Your task to perform on an android device: turn off translation in the chrome app Image 0: 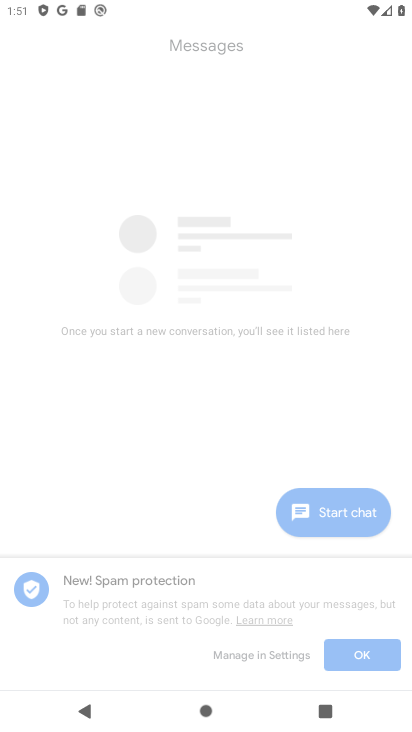
Step 0: drag from (217, 650) to (189, 462)
Your task to perform on an android device: turn off translation in the chrome app Image 1: 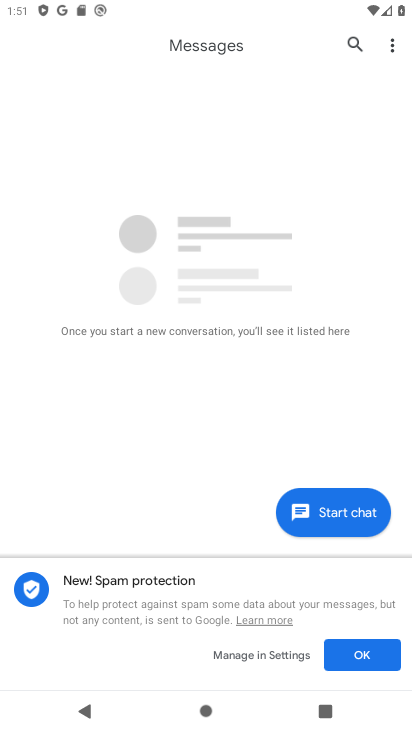
Step 1: click (362, 644)
Your task to perform on an android device: turn off translation in the chrome app Image 2: 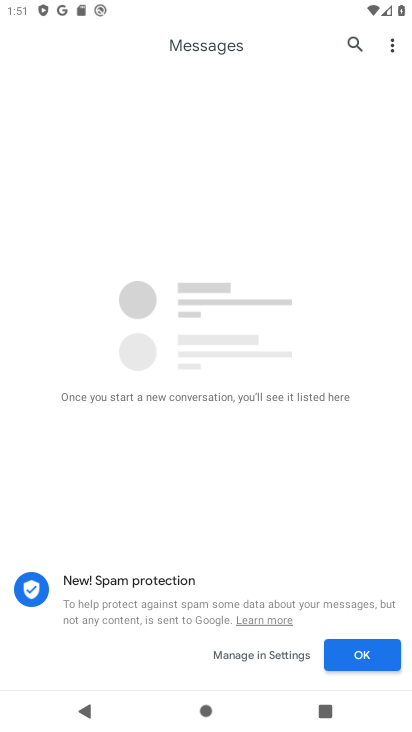
Step 2: click (362, 644)
Your task to perform on an android device: turn off translation in the chrome app Image 3: 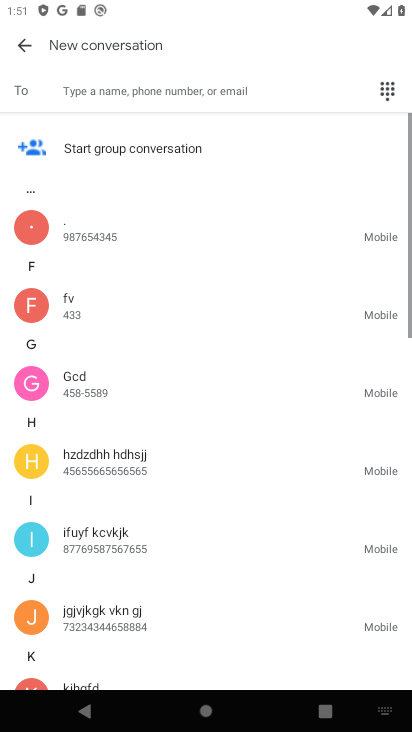
Step 3: press back button
Your task to perform on an android device: turn off translation in the chrome app Image 4: 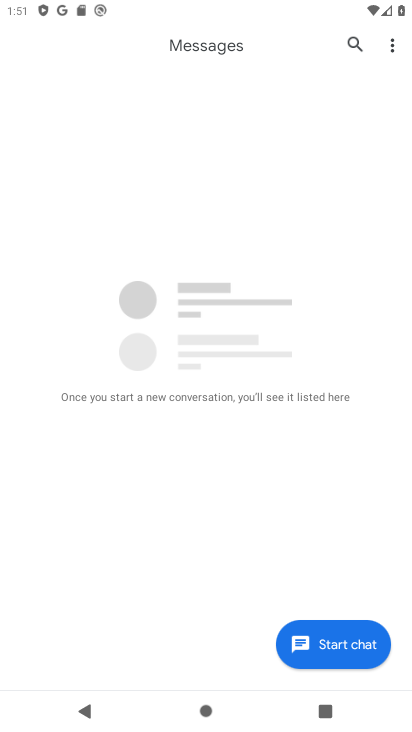
Step 4: click (352, 631)
Your task to perform on an android device: turn off translation in the chrome app Image 5: 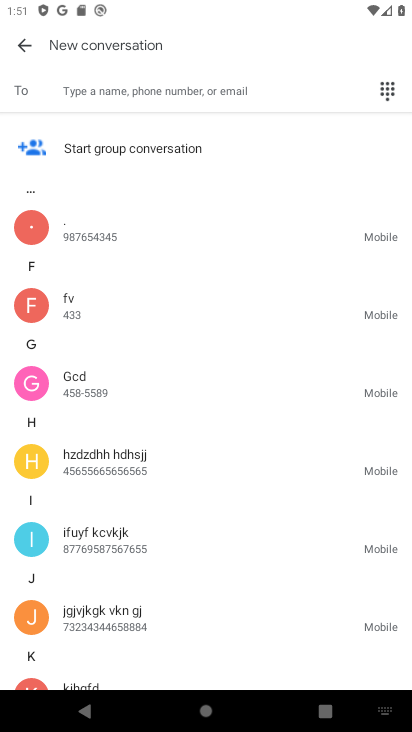
Step 5: press back button
Your task to perform on an android device: turn off translation in the chrome app Image 6: 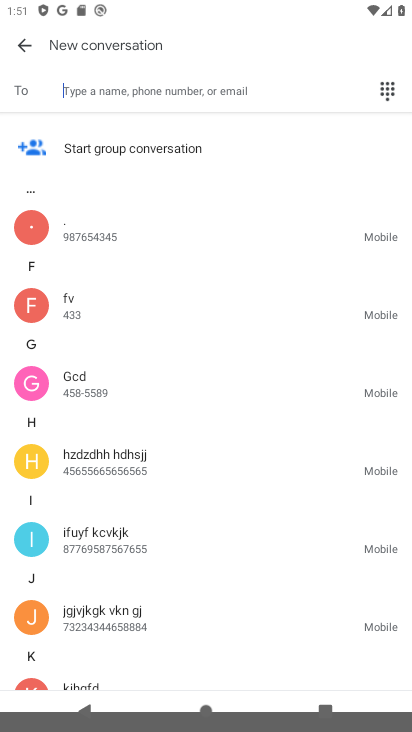
Step 6: press back button
Your task to perform on an android device: turn off translation in the chrome app Image 7: 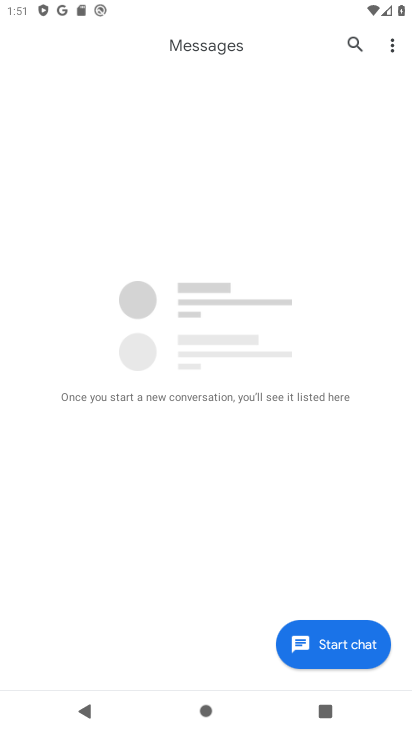
Step 7: press back button
Your task to perform on an android device: turn off translation in the chrome app Image 8: 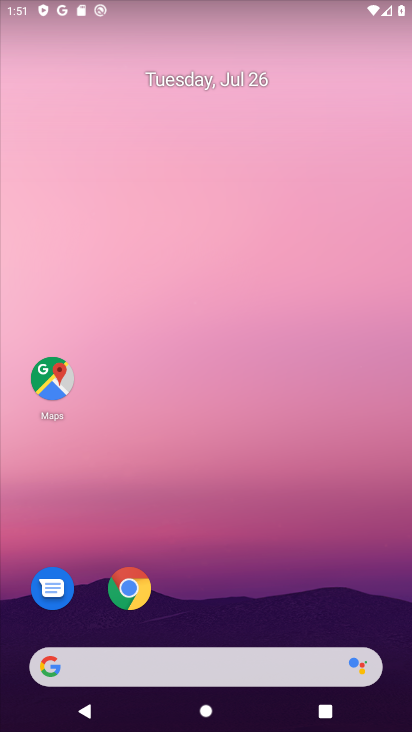
Step 8: drag from (242, 694) to (141, 197)
Your task to perform on an android device: turn off translation in the chrome app Image 9: 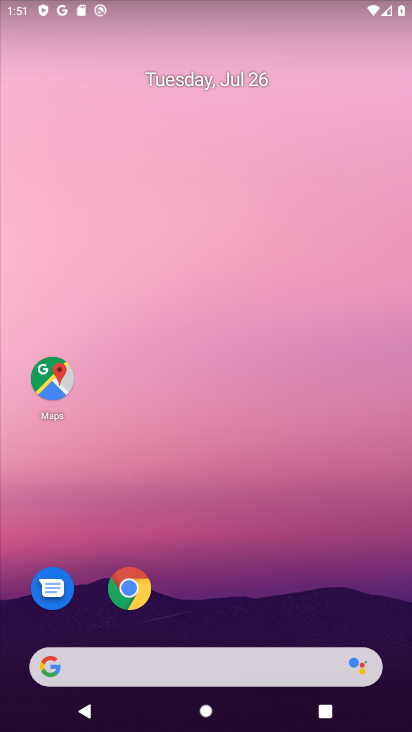
Step 9: drag from (329, 602) to (271, 222)
Your task to perform on an android device: turn off translation in the chrome app Image 10: 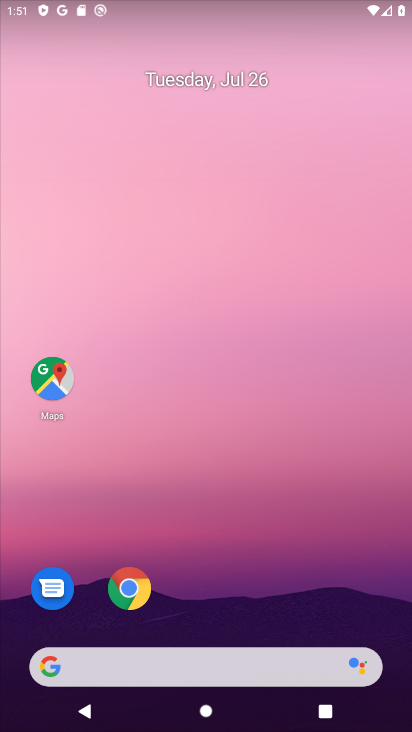
Step 10: drag from (309, 580) to (234, 237)
Your task to perform on an android device: turn off translation in the chrome app Image 11: 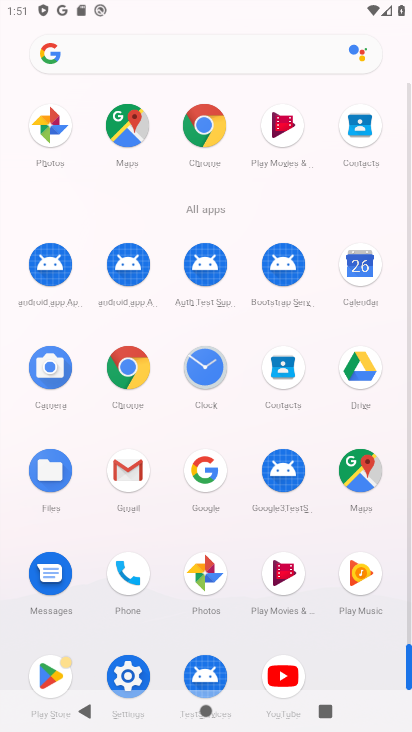
Step 11: drag from (255, 512) to (167, 173)
Your task to perform on an android device: turn off translation in the chrome app Image 12: 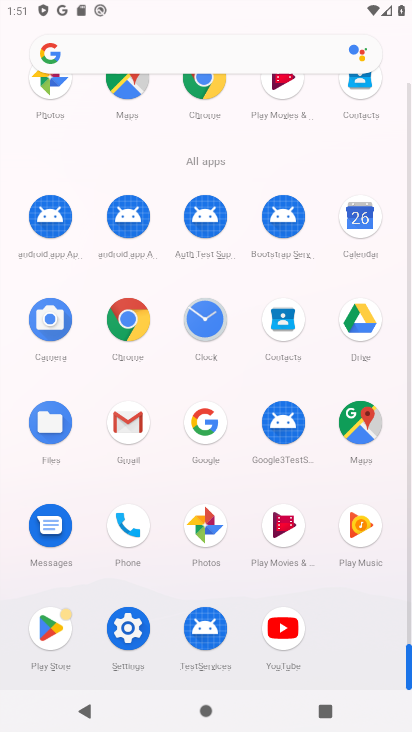
Step 12: click (201, 128)
Your task to perform on an android device: turn off translation in the chrome app Image 13: 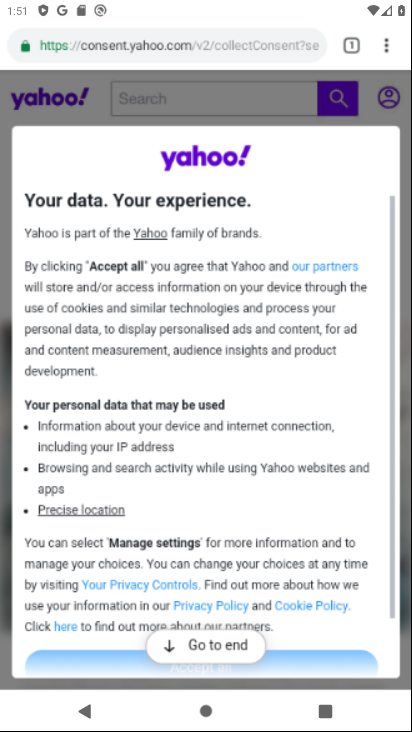
Step 13: click (196, 105)
Your task to perform on an android device: turn off translation in the chrome app Image 14: 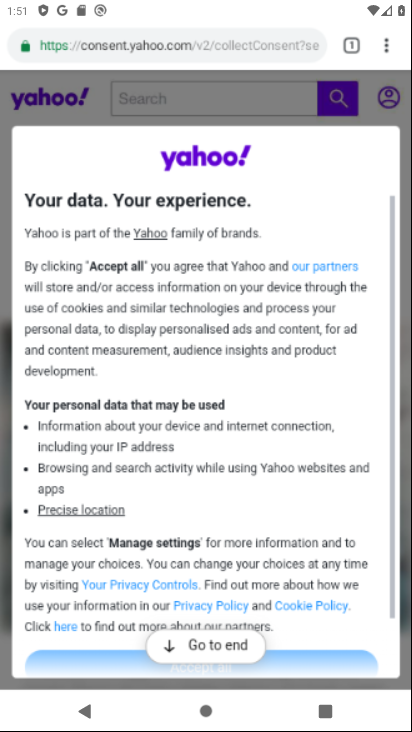
Step 14: click (198, 106)
Your task to perform on an android device: turn off translation in the chrome app Image 15: 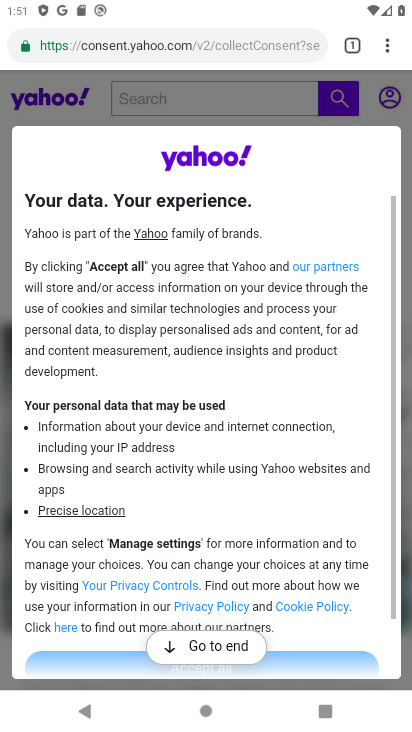
Step 15: click (382, 34)
Your task to perform on an android device: turn off translation in the chrome app Image 16: 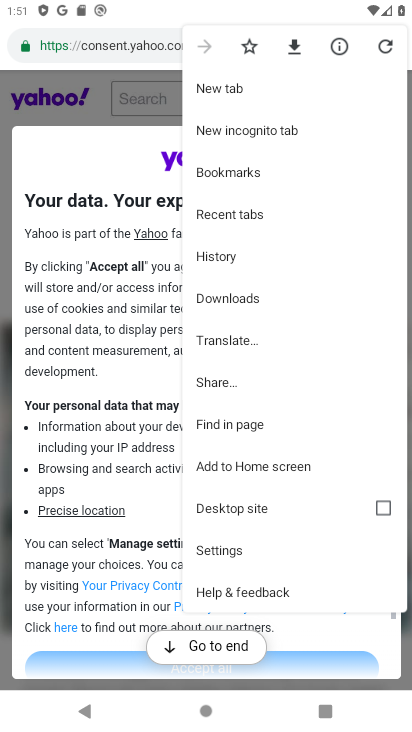
Step 16: click (217, 549)
Your task to perform on an android device: turn off translation in the chrome app Image 17: 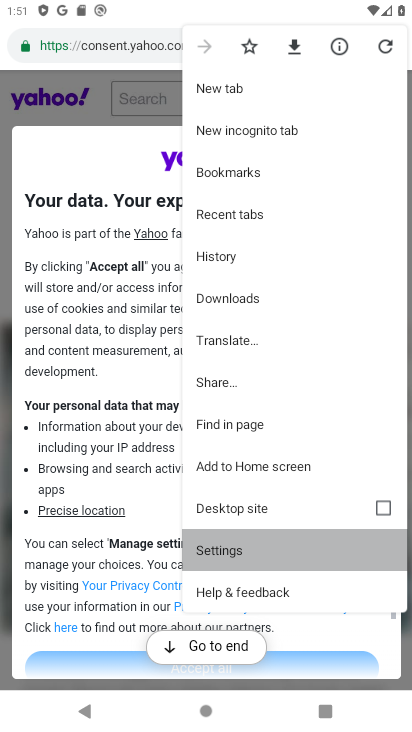
Step 17: click (217, 549)
Your task to perform on an android device: turn off translation in the chrome app Image 18: 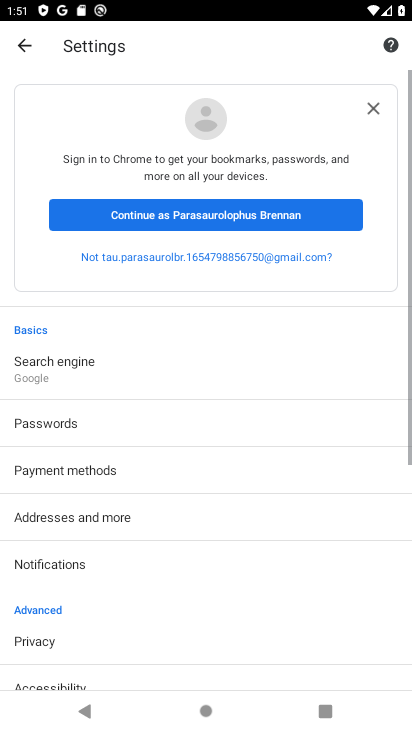
Step 18: drag from (159, 643) to (115, 356)
Your task to perform on an android device: turn off translation in the chrome app Image 19: 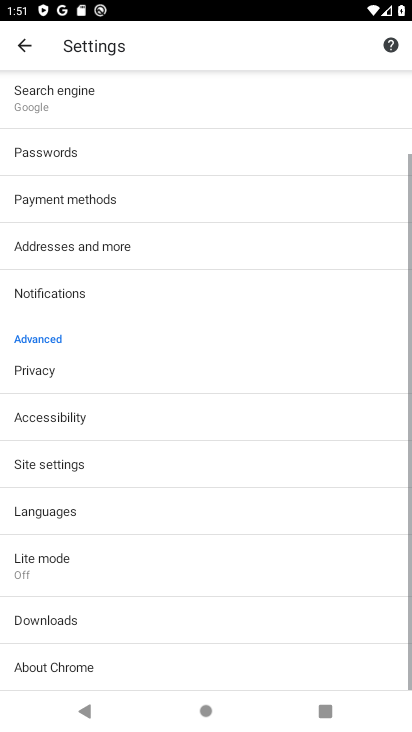
Step 19: drag from (191, 623) to (174, 305)
Your task to perform on an android device: turn off translation in the chrome app Image 20: 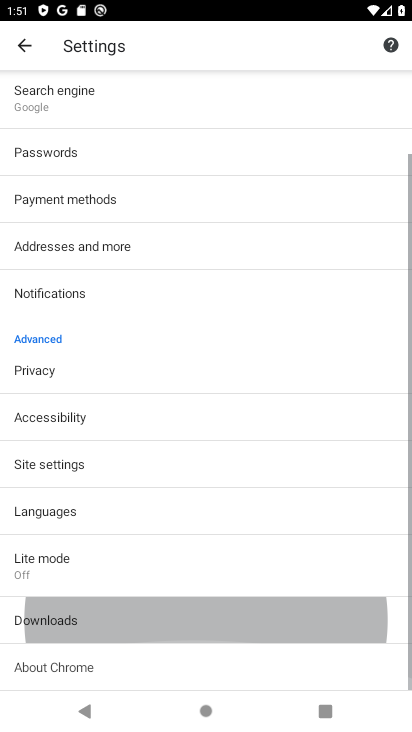
Step 20: drag from (172, 487) to (139, 318)
Your task to perform on an android device: turn off translation in the chrome app Image 21: 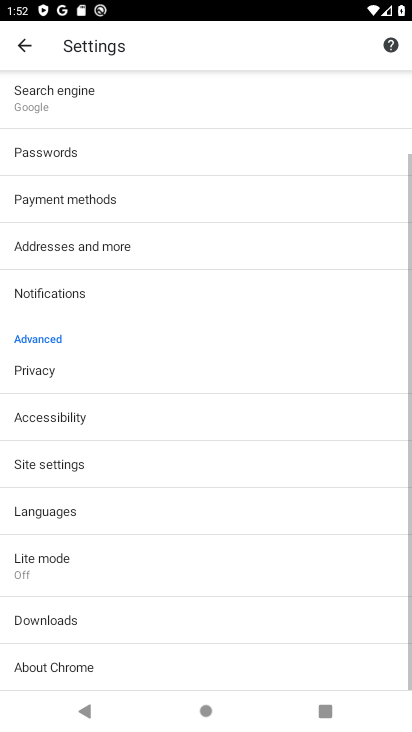
Step 21: click (72, 519)
Your task to perform on an android device: turn off translation in the chrome app Image 22: 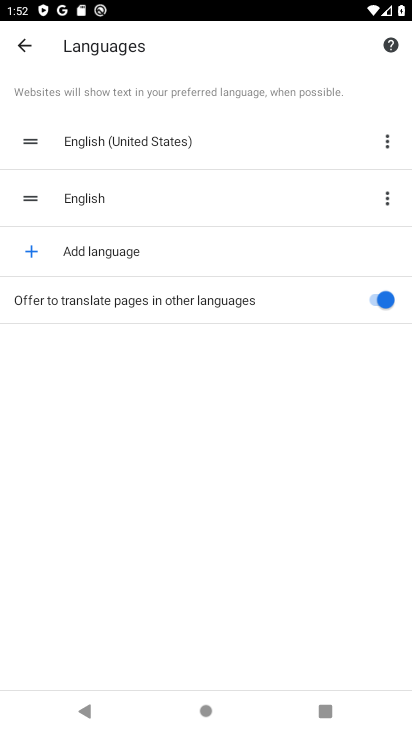
Step 22: click (387, 307)
Your task to perform on an android device: turn off translation in the chrome app Image 23: 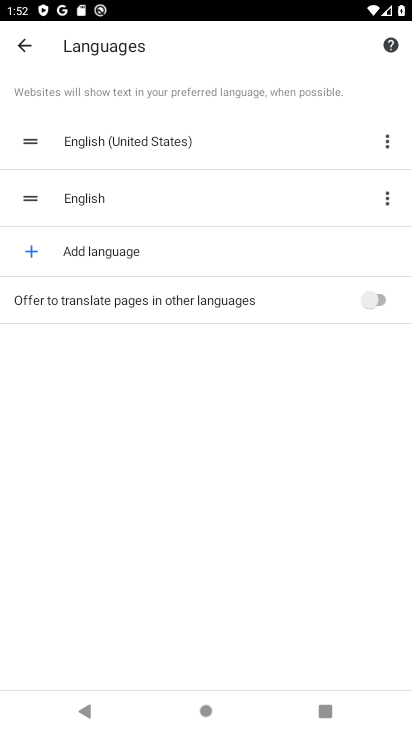
Step 23: task complete